Your task to perform on an android device: Clear the shopping cart on walmart.com. Add macbook pro to the cart on walmart.com, then select checkout. Image 0: 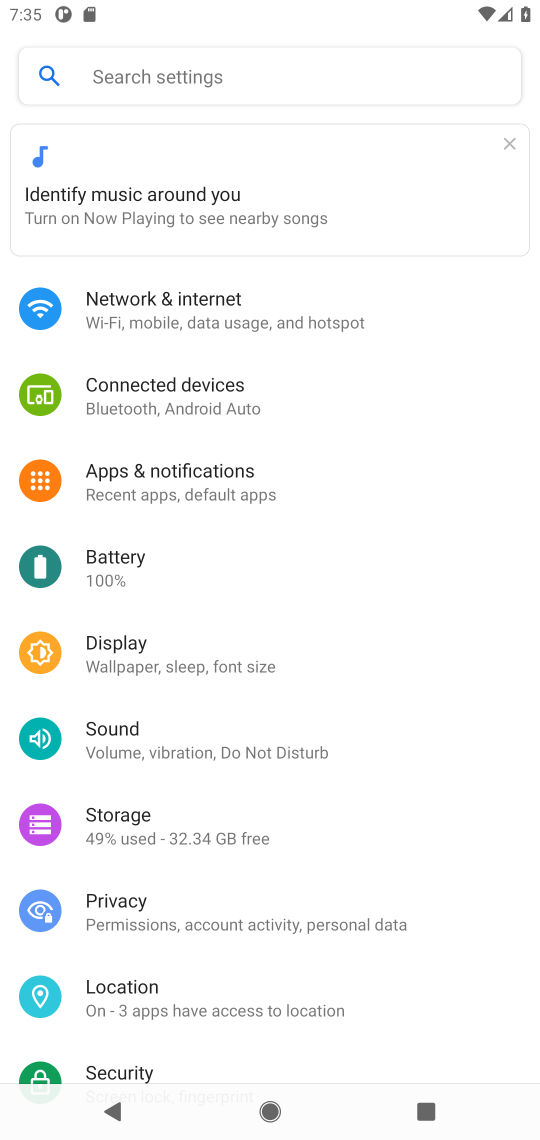
Step 0: press home button
Your task to perform on an android device: Clear the shopping cart on walmart.com. Add macbook pro to the cart on walmart.com, then select checkout. Image 1: 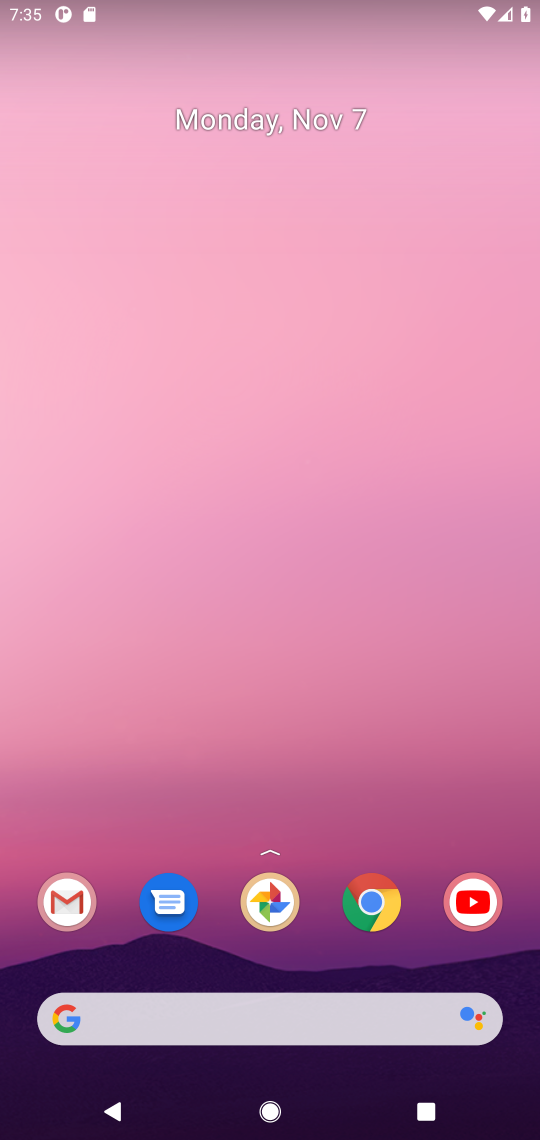
Step 1: click (375, 900)
Your task to perform on an android device: Clear the shopping cart on walmart.com. Add macbook pro to the cart on walmart.com, then select checkout. Image 2: 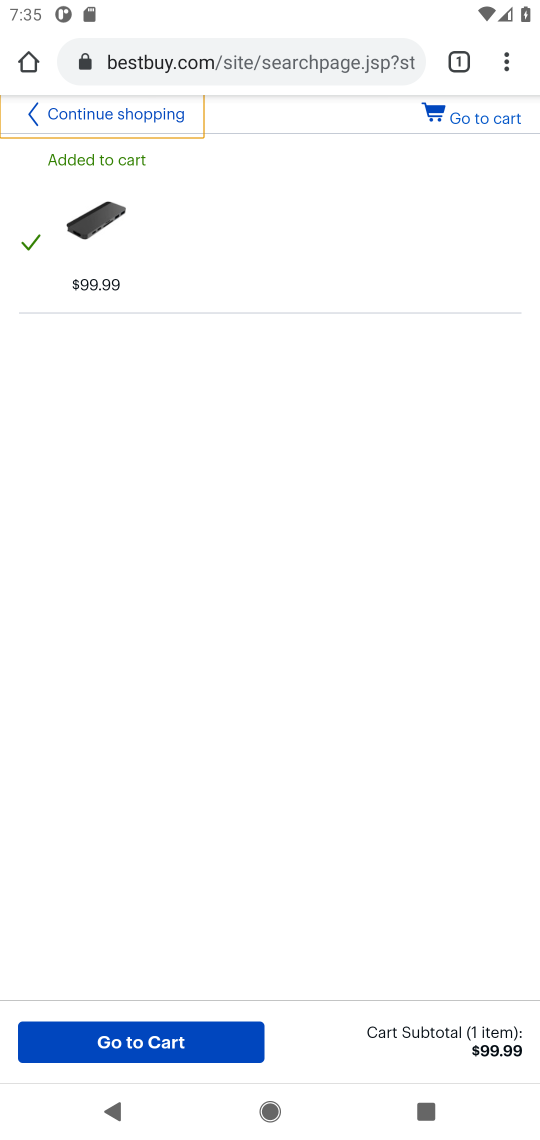
Step 2: click (214, 70)
Your task to perform on an android device: Clear the shopping cart on walmart.com. Add macbook pro to the cart on walmart.com, then select checkout. Image 3: 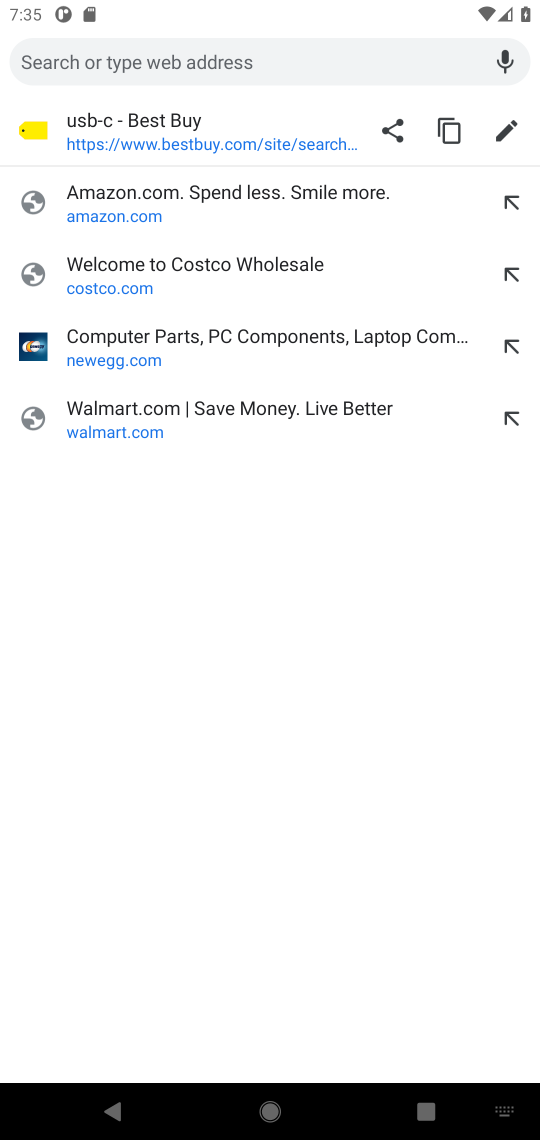
Step 3: click (111, 427)
Your task to perform on an android device: Clear the shopping cart on walmart.com. Add macbook pro to the cart on walmart.com, then select checkout. Image 4: 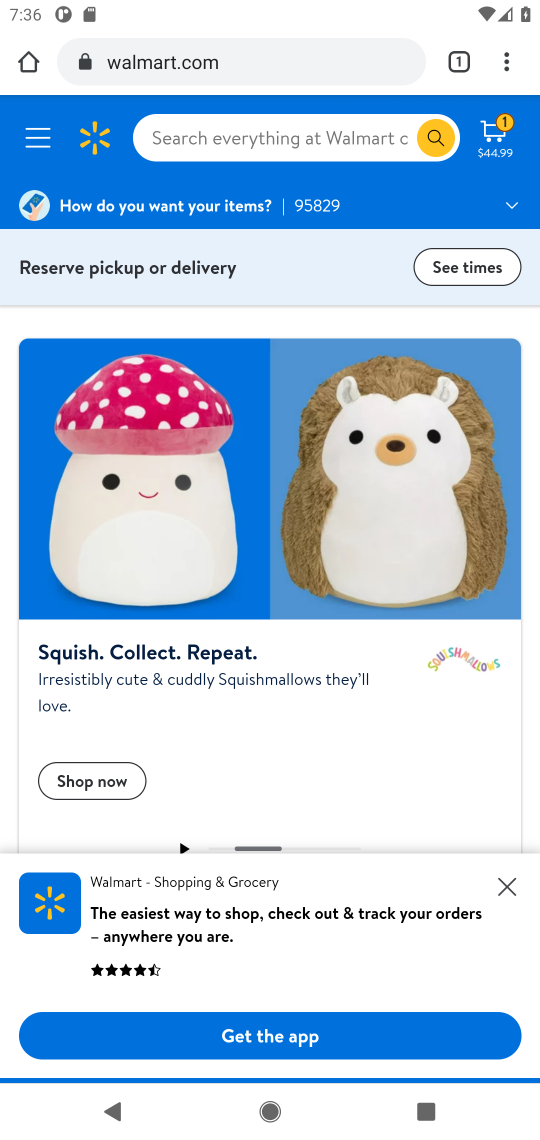
Step 4: click (494, 142)
Your task to perform on an android device: Clear the shopping cart on walmart.com. Add macbook pro to the cart on walmart.com, then select checkout. Image 5: 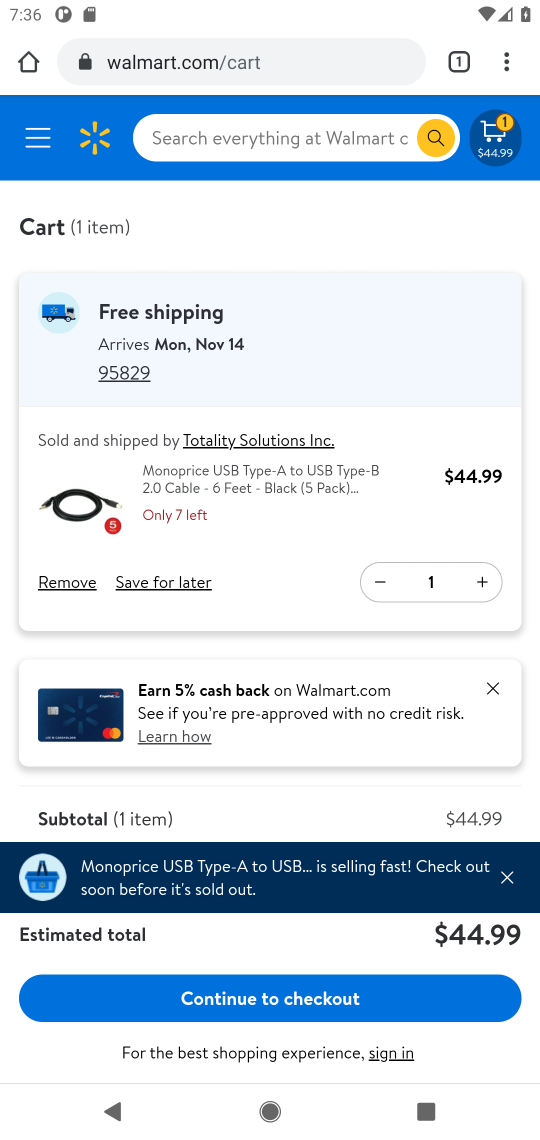
Step 5: click (58, 578)
Your task to perform on an android device: Clear the shopping cart on walmart.com. Add macbook pro to the cart on walmart.com, then select checkout. Image 6: 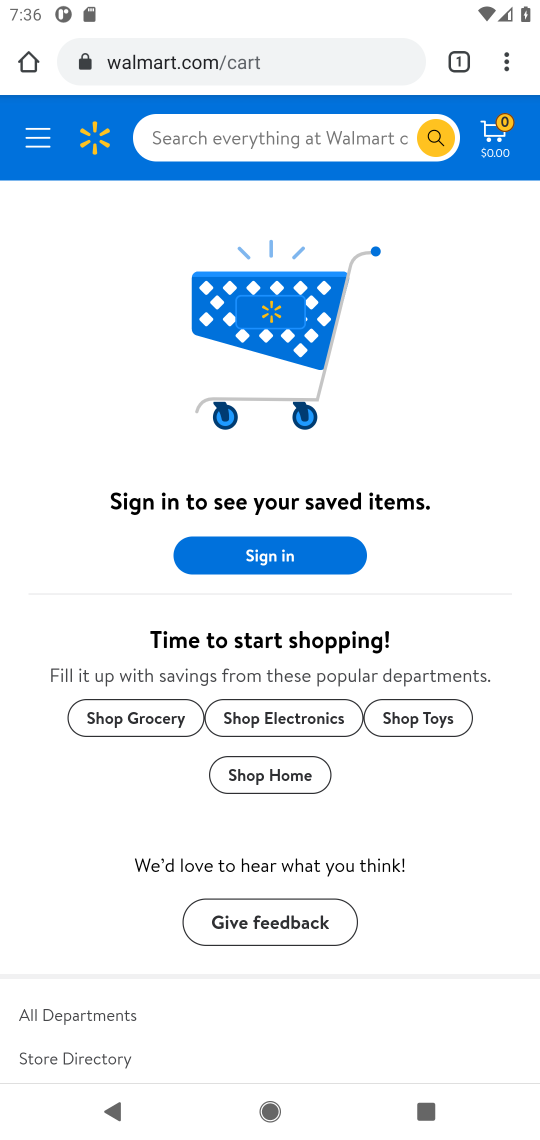
Step 6: click (217, 144)
Your task to perform on an android device: Clear the shopping cart on walmart.com. Add macbook pro to the cart on walmart.com, then select checkout. Image 7: 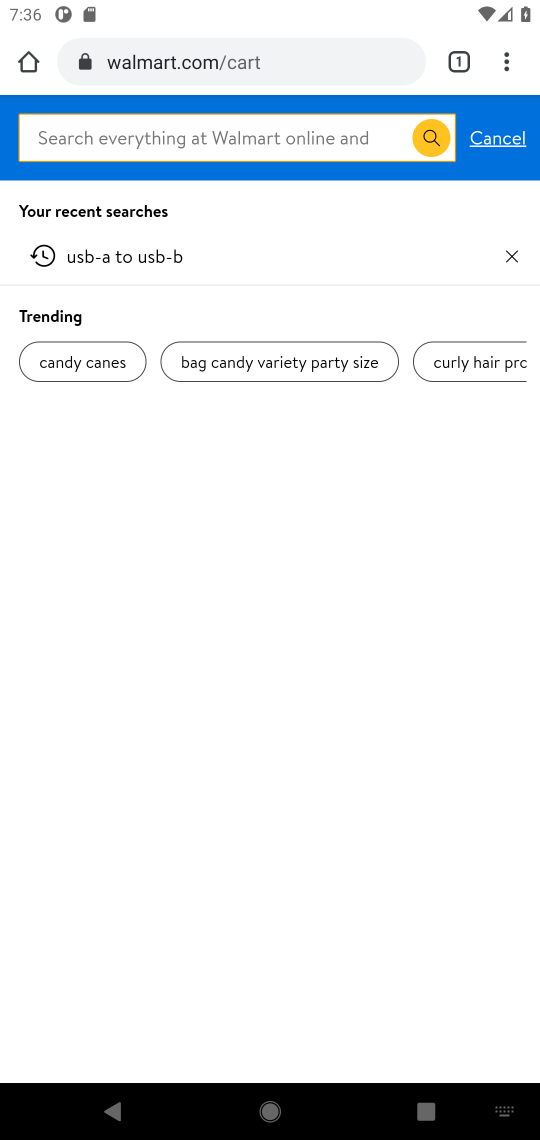
Step 7: type "macbook pro"
Your task to perform on an android device: Clear the shopping cart on walmart.com. Add macbook pro to the cart on walmart.com, then select checkout. Image 8: 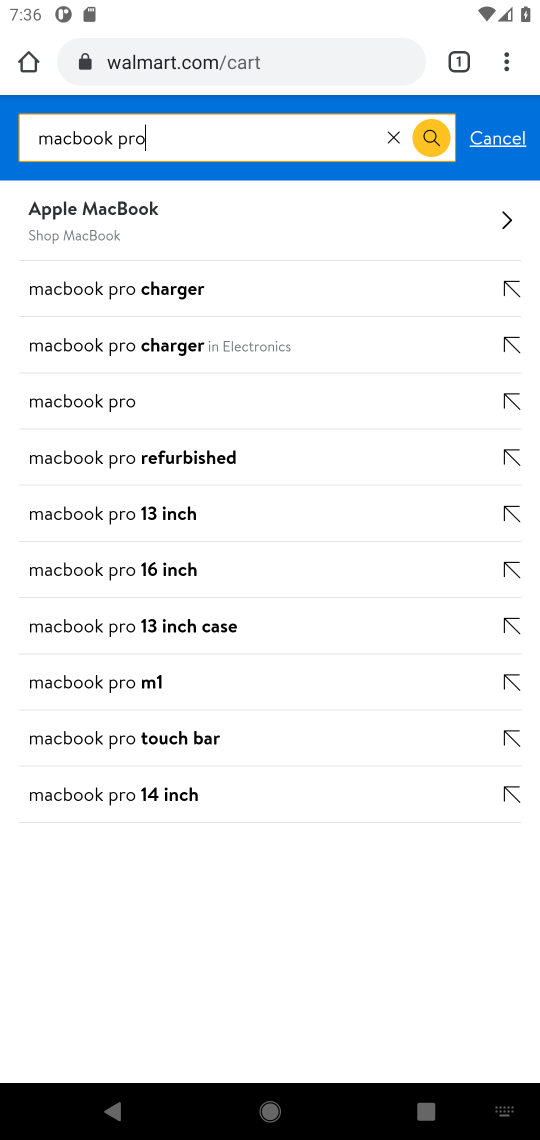
Step 8: click (438, 137)
Your task to perform on an android device: Clear the shopping cart on walmart.com. Add macbook pro to the cart on walmart.com, then select checkout. Image 9: 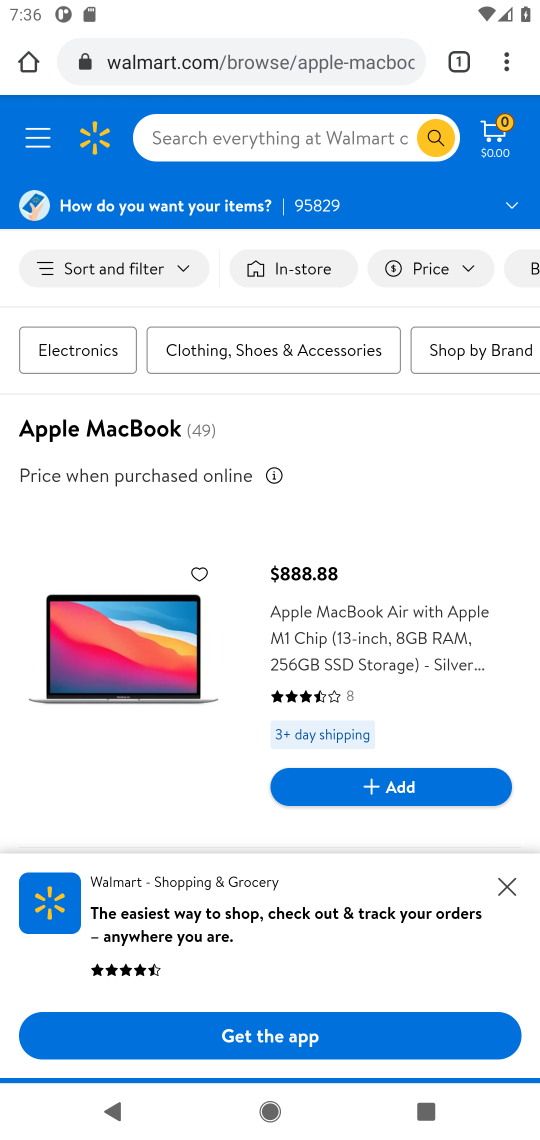
Step 9: drag from (195, 637) to (204, 348)
Your task to perform on an android device: Clear the shopping cart on walmart.com. Add macbook pro to the cart on walmart.com, then select checkout. Image 10: 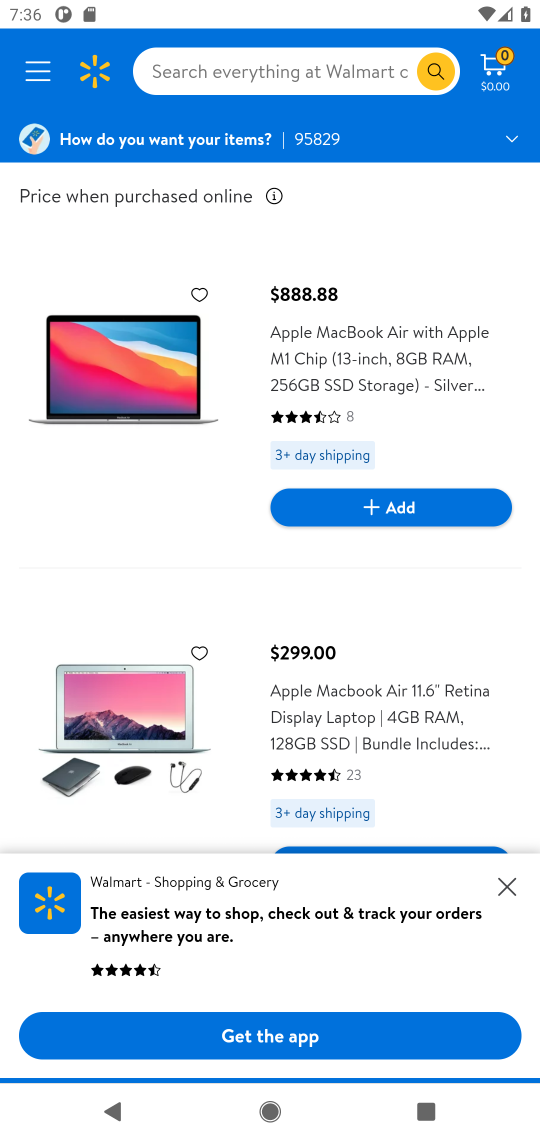
Step 10: drag from (204, 711) to (185, 277)
Your task to perform on an android device: Clear the shopping cart on walmart.com. Add macbook pro to the cart on walmart.com, then select checkout. Image 11: 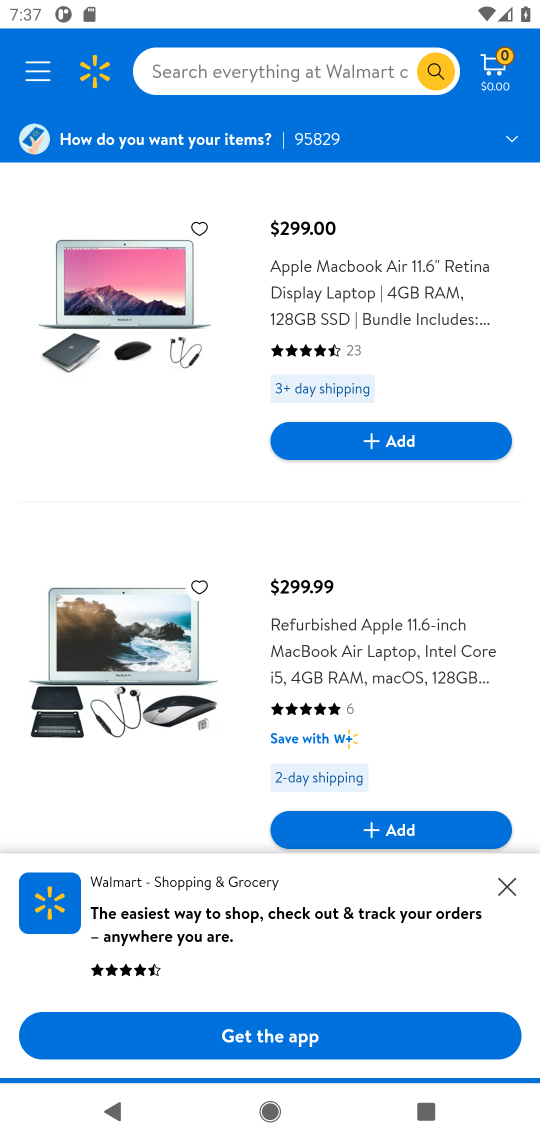
Step 11: drag from (177, 722) to (171, 301)
Your task to perform on an android device: Clear the shopping cart on walmart.com. Add macbook pro to the cart on walmart.com, then select checkout. Image 12: 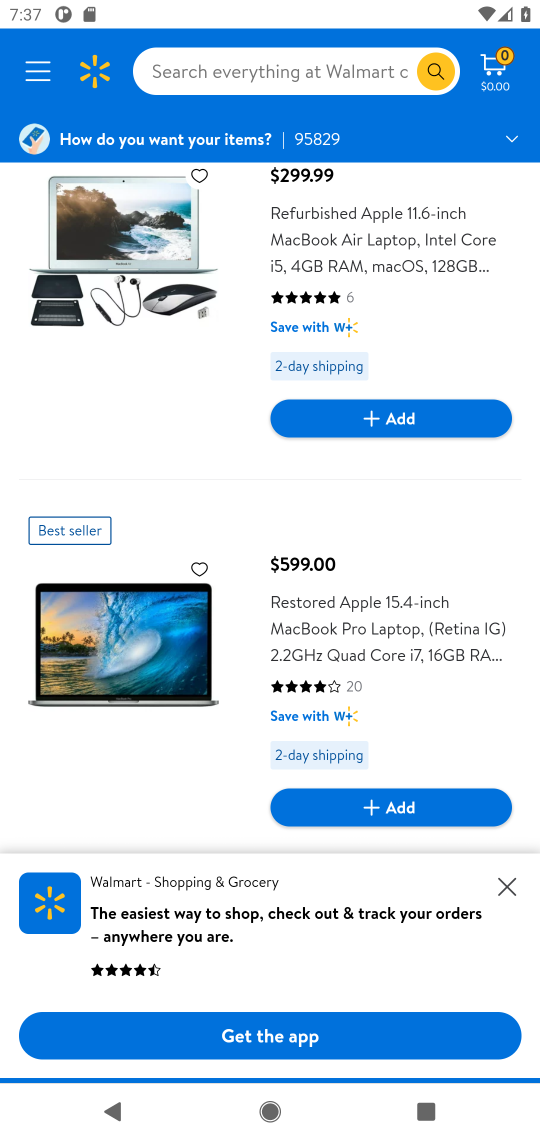
Step 12: drag from (159, 699) to (166, 313)
Your task to perform on an android device: Clear the shopping cart on walmart.com. Add macbook pro to the cart on walmart.com, then select checkout. Image 13: 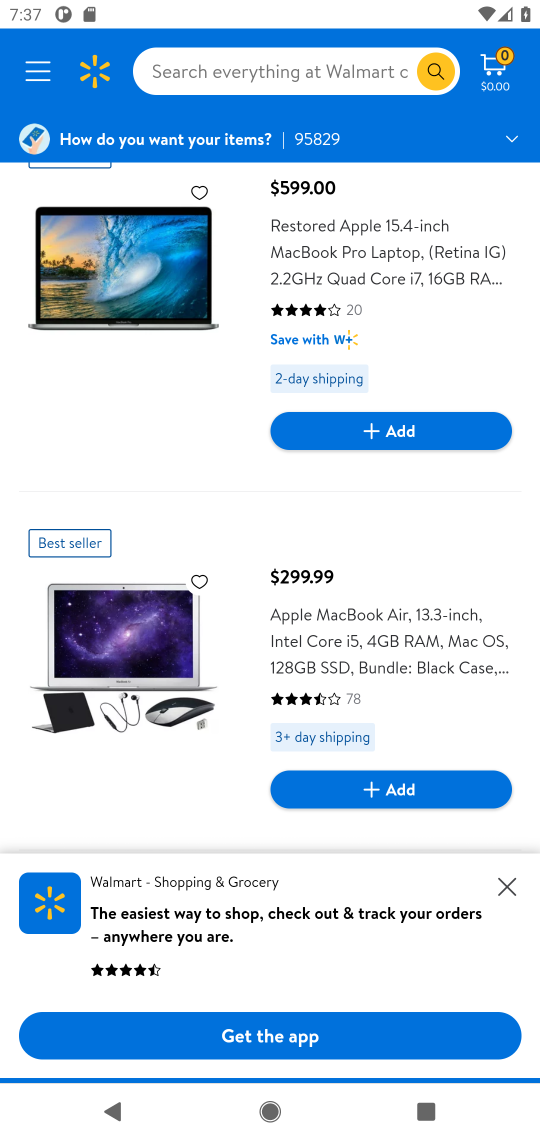
Step 13: drag from (187, 731) to (191, 343)
Your task to perform on an android device: Clear the shopping cart on walmart.com. Add macbook pro to the cart on walmart.com, then select checkout. Image 14: 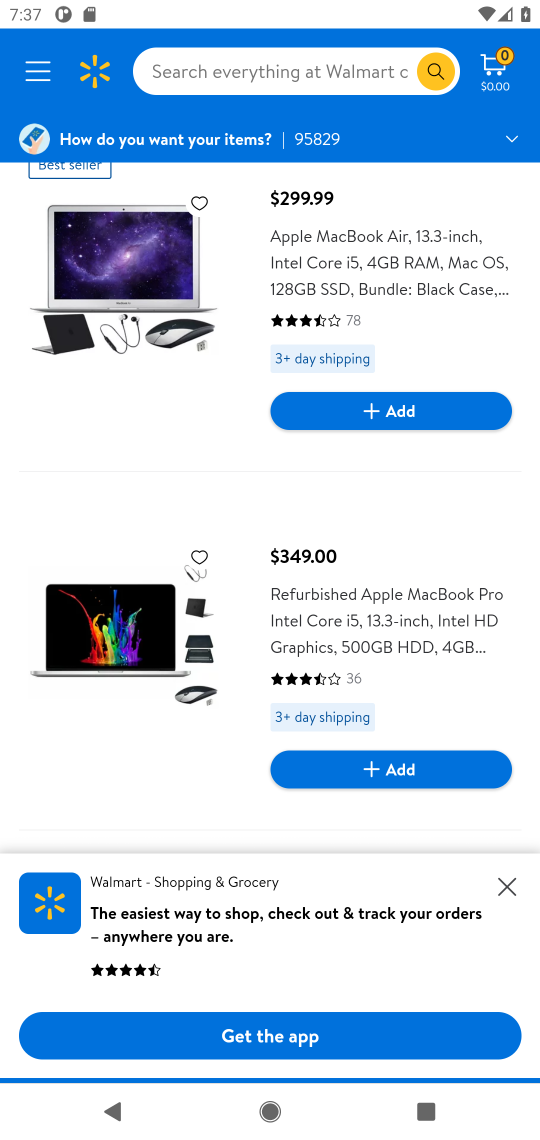
Step 14: drag from (168, 703) to (158, 307)
Your task to perform on an android device: Clear the shopping cart on walmart.com. Add macbook pro to the cart on walmart.com, then select checkout. Image 15: 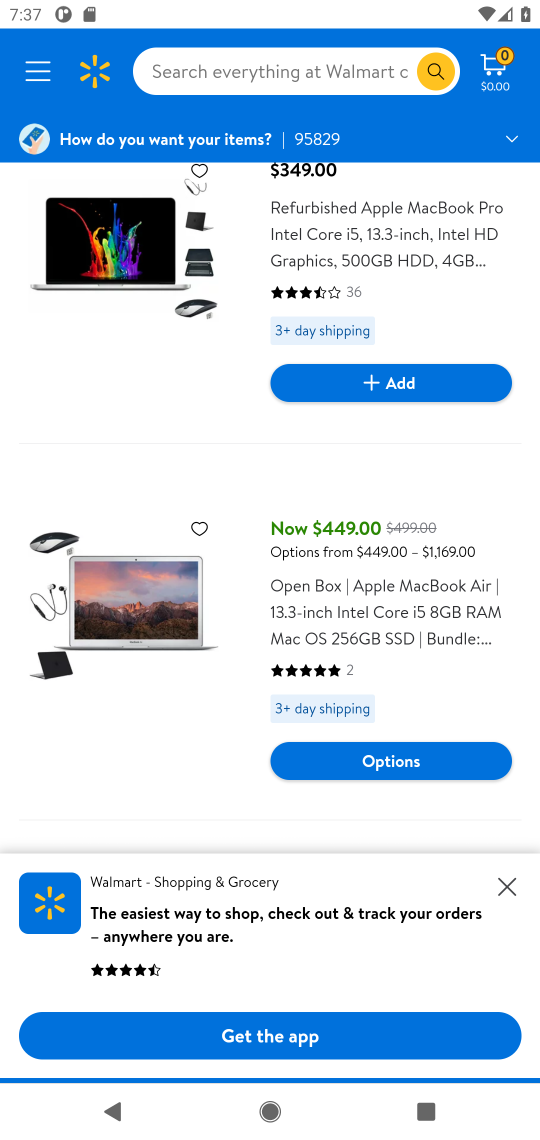
Step 15: click (349, 254)
Your task to perform on an android device: Clear the shopping cart on walmart.com. Add macbook pro to the cart on walmart.com, then select checkout. Image 16: 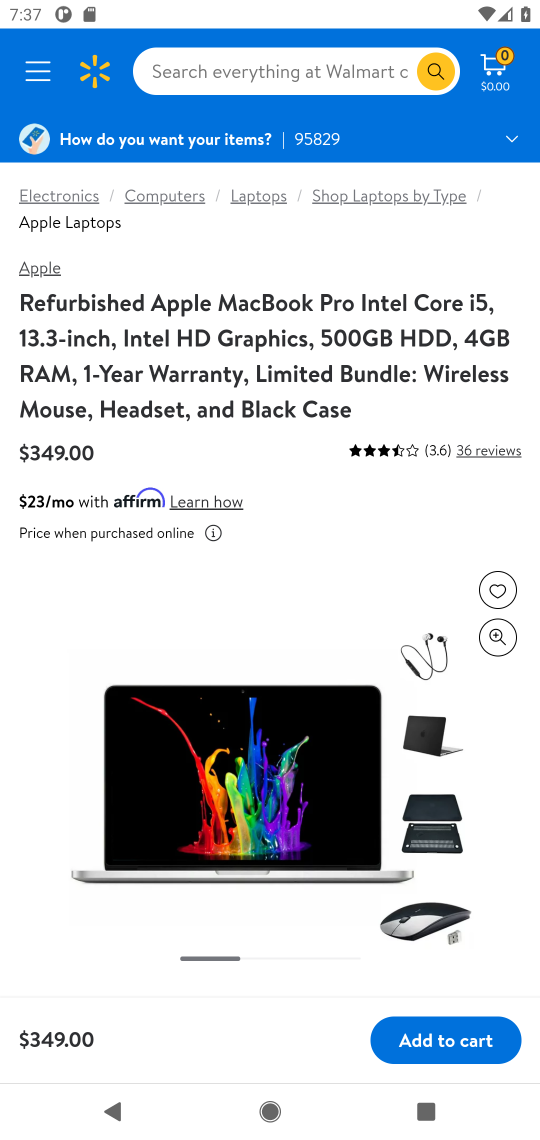
Step 16: click (442, 1053)
Your task to perform on an android device: Clear the shopping cart on walmart.com. Add macbook pro to the cart on walmart.com, then select checkout. Image 17: 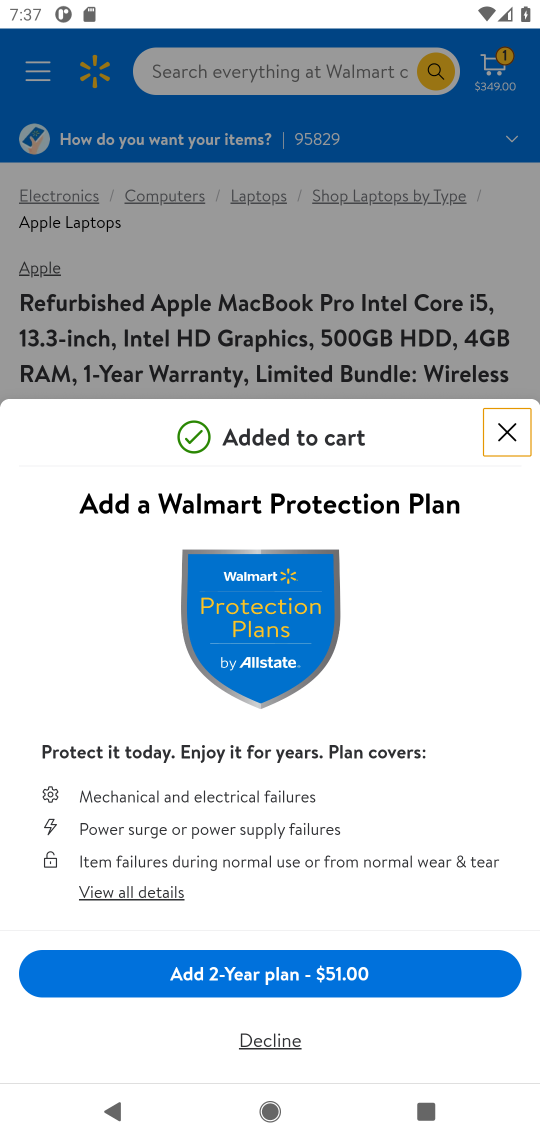
Step 17: click (502, 432)
Your task to perform on an android device: Clear the shopping cart on walmart.com. Add macbook pro to the cart on walmart.com, then select checkout. Image 18: 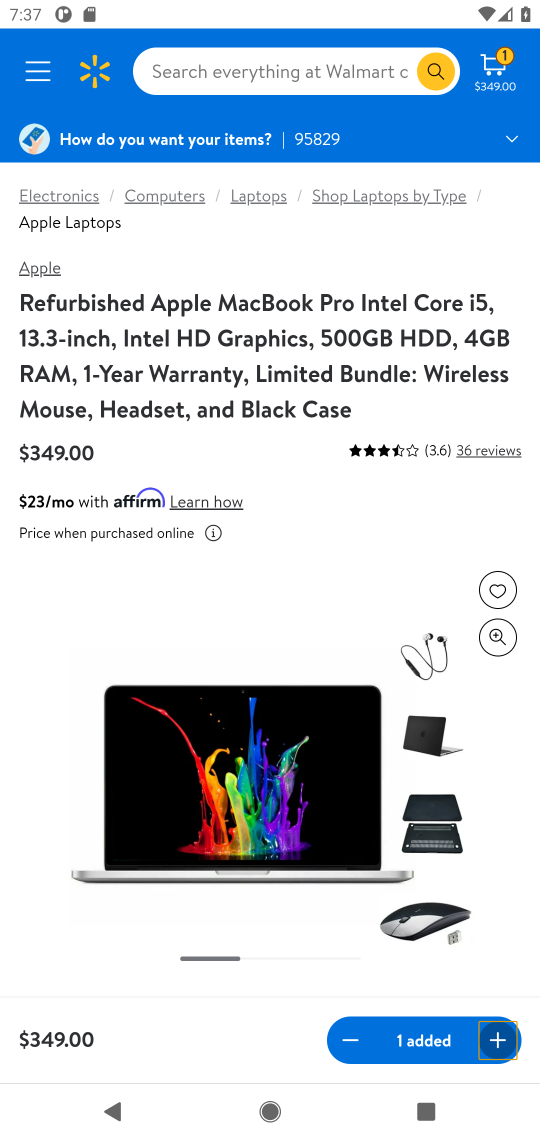
Step 18: click (503, 76)
Your task to perform on an android device: Clear the shopping cart on walmart.com. Add macbook pro to the cart on walmart.com, then select checkout. Image 19: 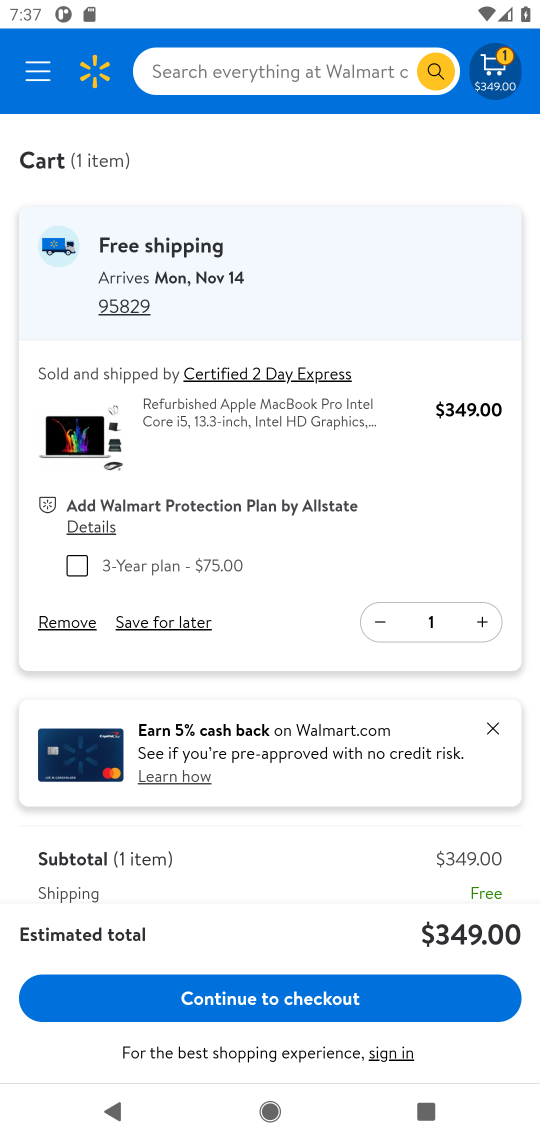
Step 19: click (281, 1010)
Your task to perform on an android device: Clear the shopping cart on walmart.com. Add macbook pro to the cart on walmart.com, then select checkout. Image 20: 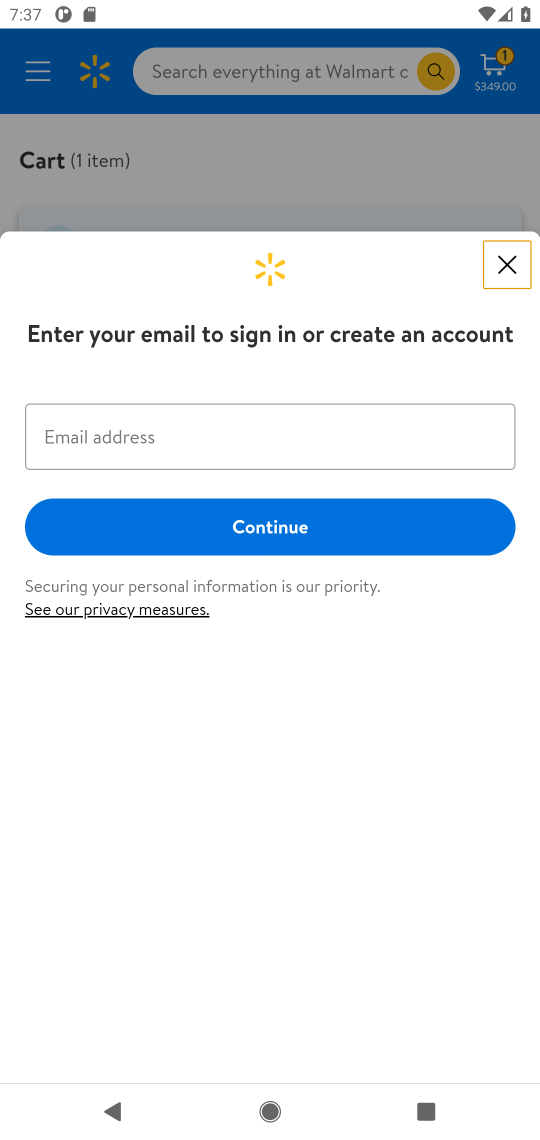
Step 20: task complete